Your task to perform on an android device: What's the weather today? Image 0: 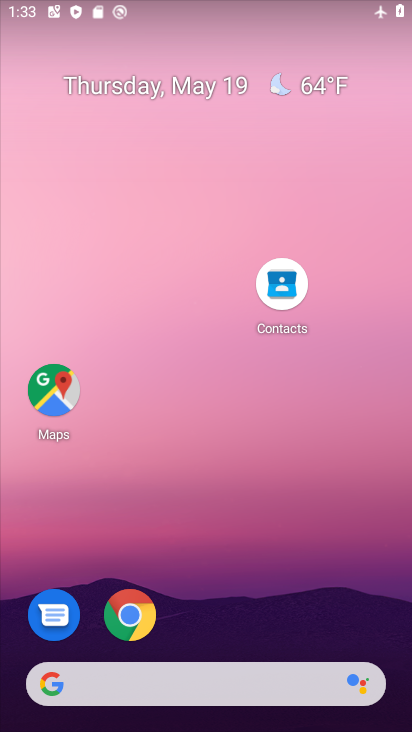
Step 0: drag from (260, 596) to (292, 182)
Your task to perform on an android device: What's the weather today? Image 1: 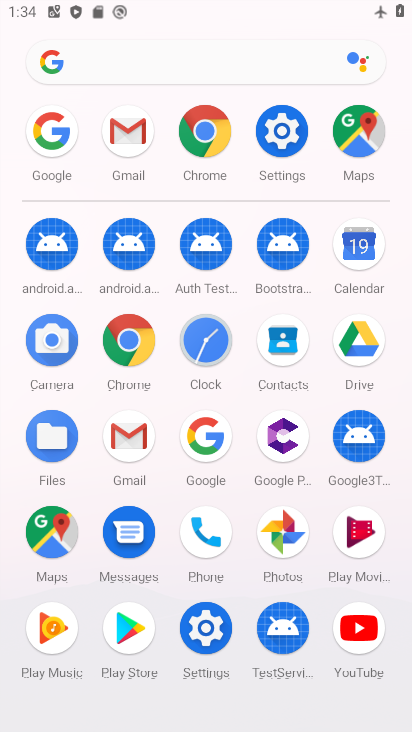
Step 1: drag from (157, 526) to (223, 240)
Your task to perform on an android device: What's the weather today? Image 2: 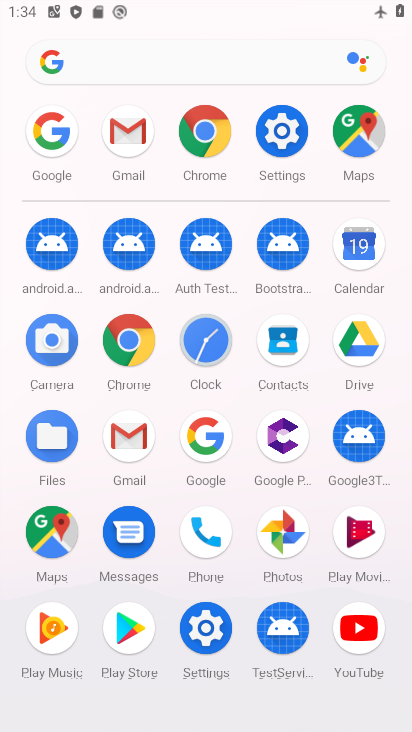
Step 2: click (209, 459)
Your task to perform on an android device: What's the weather today? Image 3: 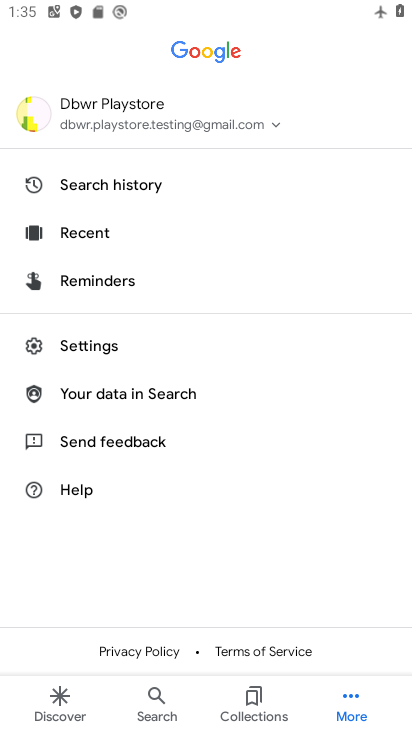
Step 3: click (170, 715)
Your task to perform on an android device: What's the weather today? Image 4: 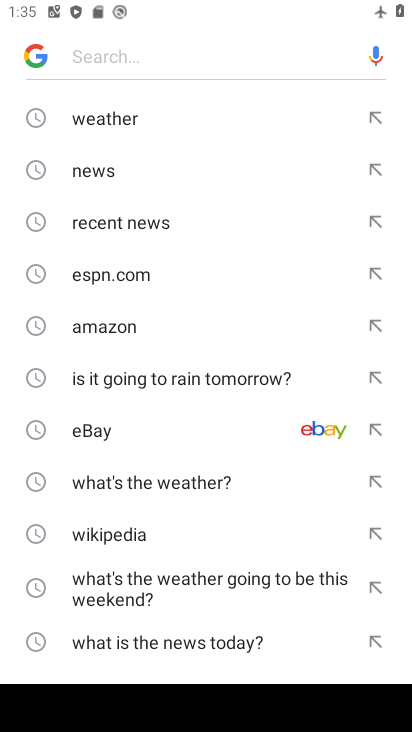
Step 4: click (280, 120)
Your task to perform on an android device: What's the weather today? Image 5: 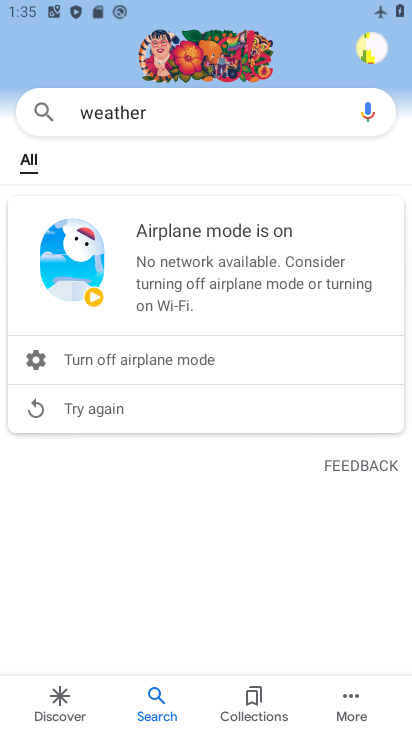
Step 5: task complete